Your task to perform on an android device: turn smart compose on in the gmail app Image 0: 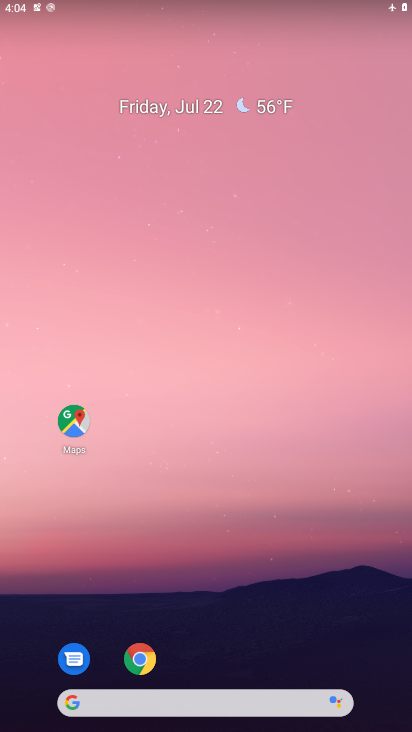
Step 0: drag from (216, 655) to (220, 244)
Your task to perform on an android device: turn smart compose on in the gmail app Image 1: 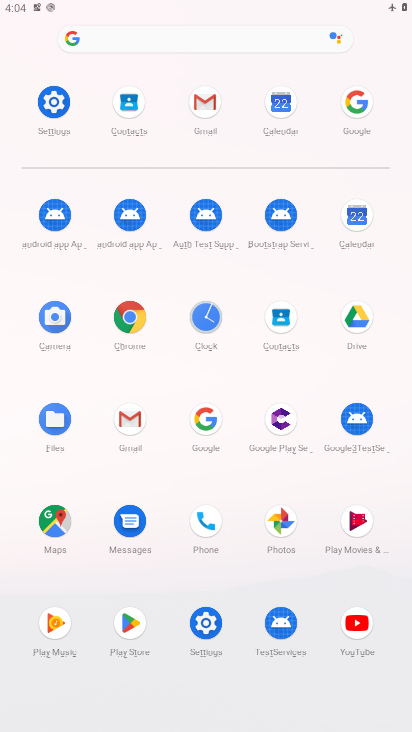
Step 1: click (138, 426)
Your task to perform on an android device: turn smart compose on in the gmail app Image 2: 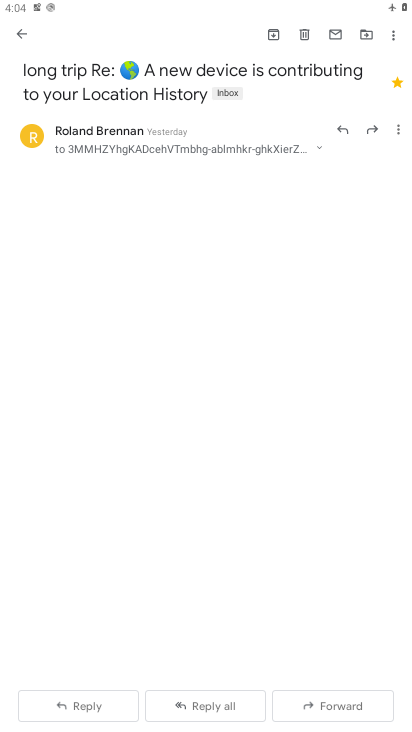
Step 2: click (18, 33)
Your task to perform on an android device: turn smart compose on in the gmail app Image 3: 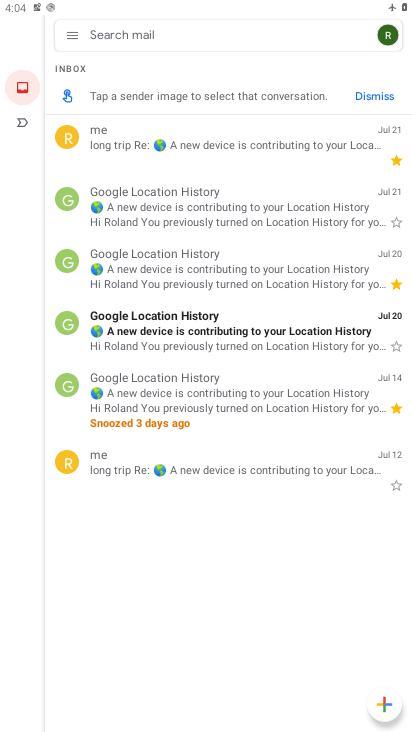
Step 3: click (77, 37)
Your task to perform on an android device: turn smart compose on in the gmail app Image 4: 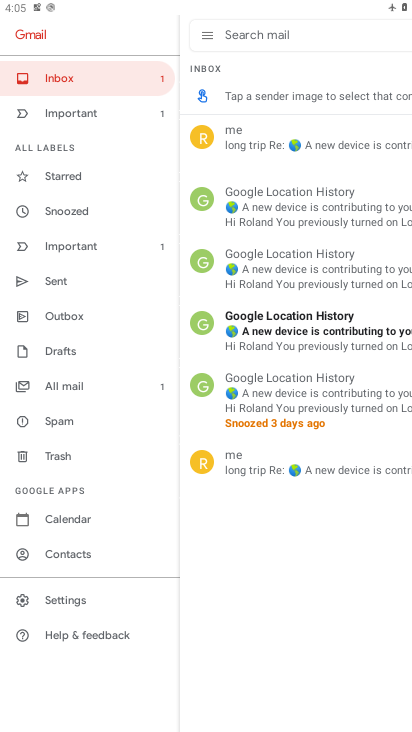
Step 4: click (67, 599)
Your task to perform on an android device: turn smart compose on in the gmail app Image 5: 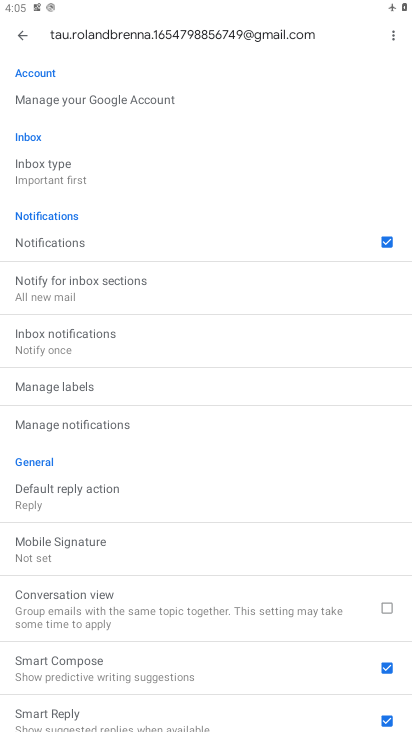
Step 5: click (39, 175)
Your task to perform on an android device: turn smart compose on in the gmail app Image 6: 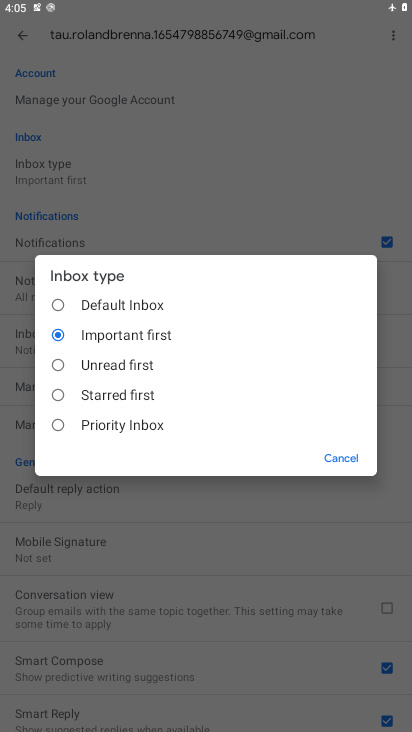
Step 6: click (331, 465)
Your task to perform on an android device: turn smart compose on in the gmail app Image 7: 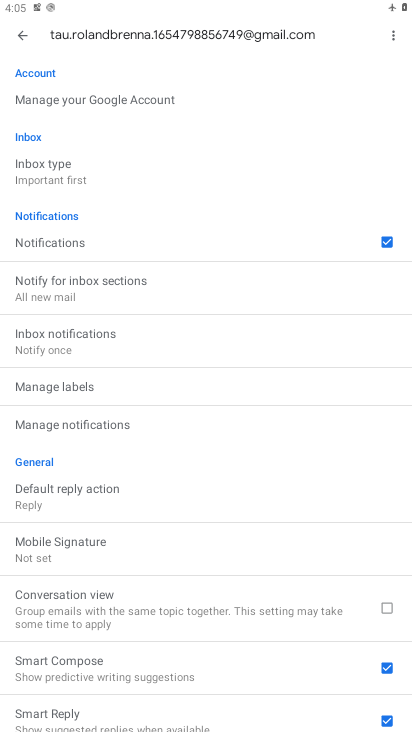
Step 7: task complete